Your task to perform on an android device: Search for vegetarian restaurants on Maps Image 0: 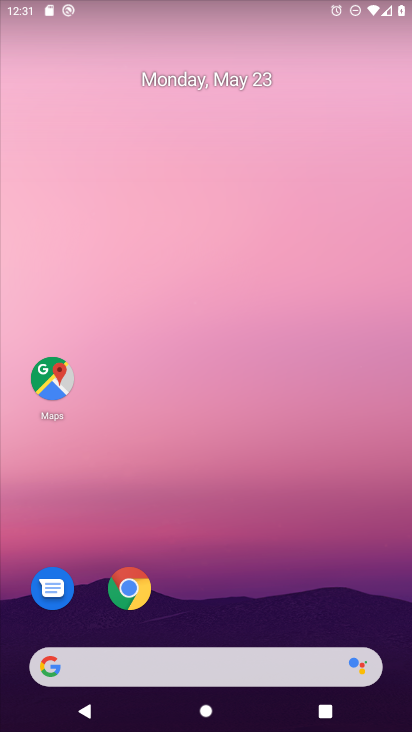
Step 0: drag from (296, 693) to (264, 236)
Your task to perform on an android device: Search for vegetarian restaurants on Maps Image 1: 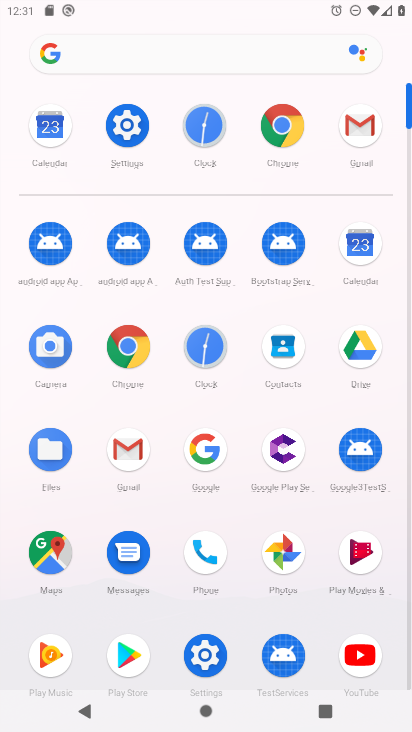
Step 1: click (56, 552)
Your task to perform on an android device: Search for vegetarian restaurants on Maps Image 2: 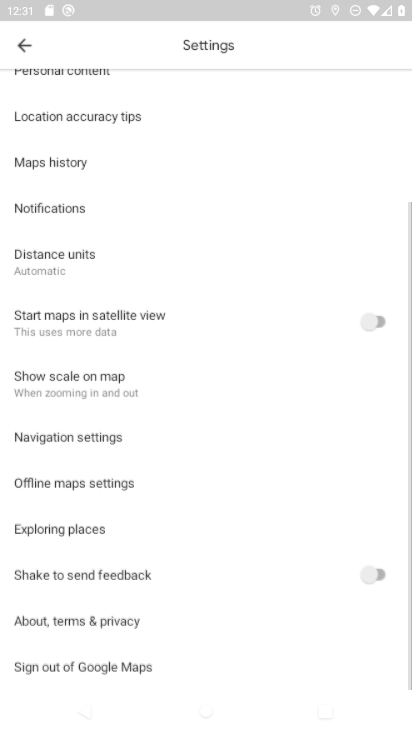
Step 2: click (17, 47)
Your task to perform on an android device: Search for vegetarian restaurants on Maps Image 3: 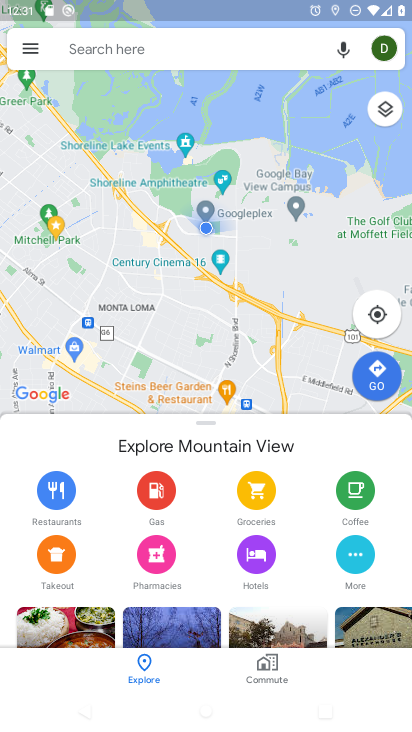
Step 3: click (153, 55)
Your task to perform on an android device: Search for vegetarian restaurants on Maps Image 4: 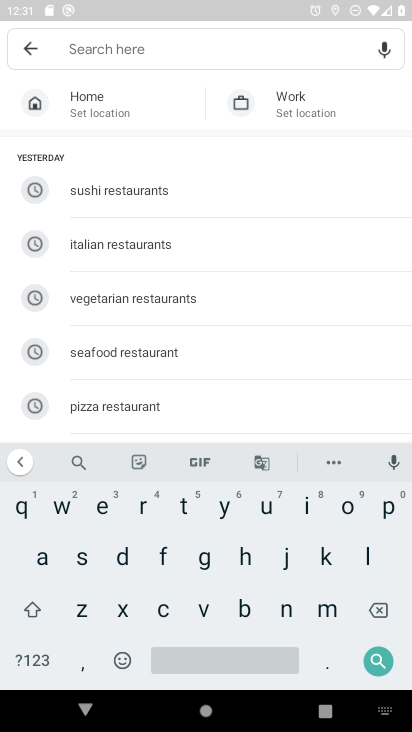
Step 4: click (162, 293)
Your task to perform on an android device: Search for vegetarian restaurants on Maps Image 5: 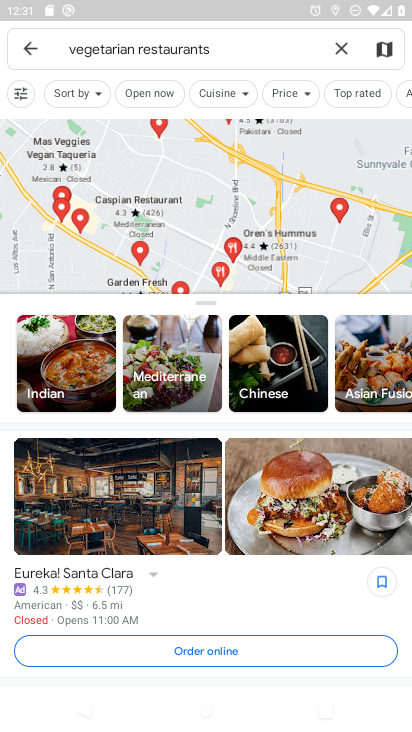
Step 5: click (162, 212)
Your task to perform on an android device: Search for vegetarian restaurants on Maps Image 6: 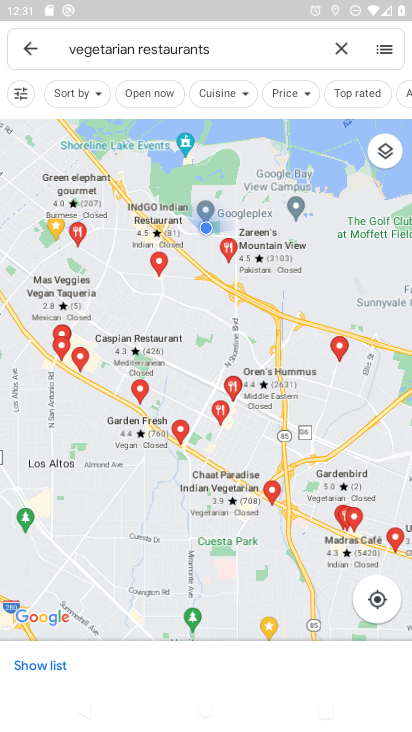
Step 6: task complete